Your task to perform on an android device: see sites visited before in the chrome app Image 0: 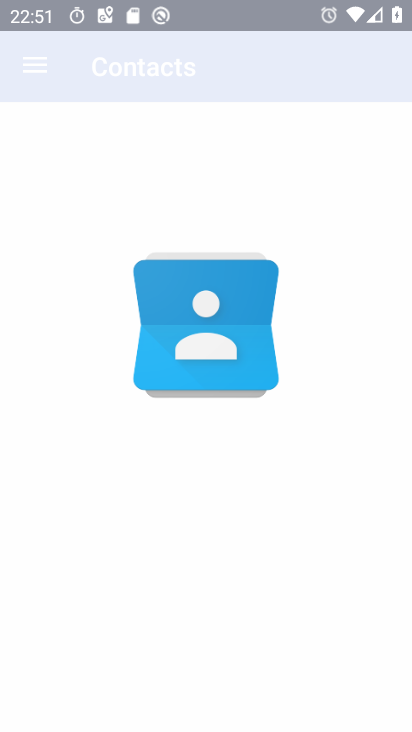
Step 0: press home button
Your task to perform on an android device: see sites visited before in the chrome app Image 1: 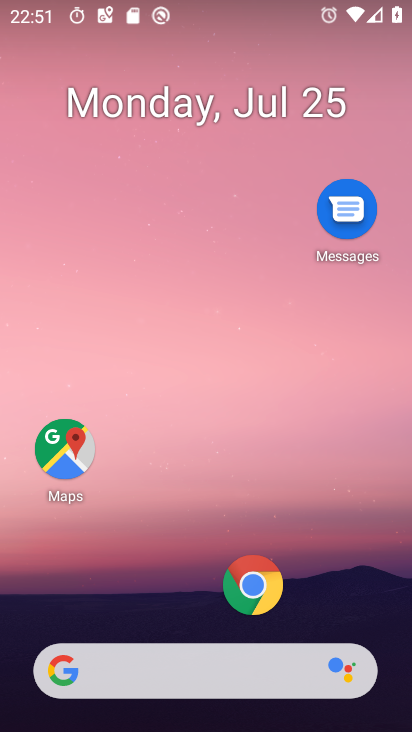
Step 1: click (278, 577)
Your task to perform on an android device: see sites visited before in the chrome app Image 2: 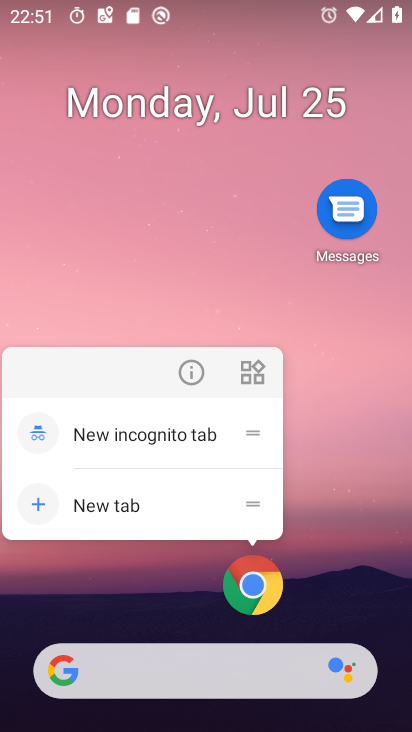
Step 2: click (258, 583)
Your task to perform on an android device: see sites visited before in the chrome app Image 3: 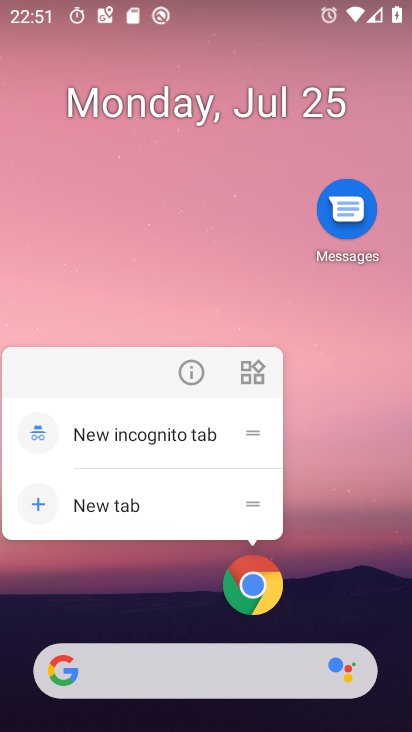
Step 3: click (250, 592)
Your task to perform on an android device: see sites visited before in the chrome app Image 4: 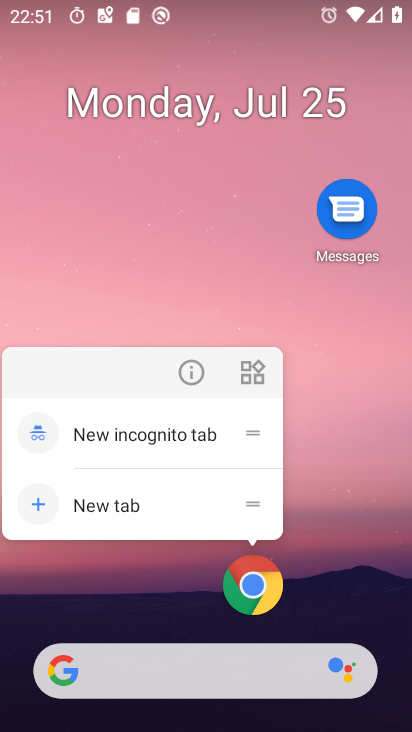
Step 4: click (250, 593)
Your task to perform on an android device: see sites visited before in the chrome app Image 5: 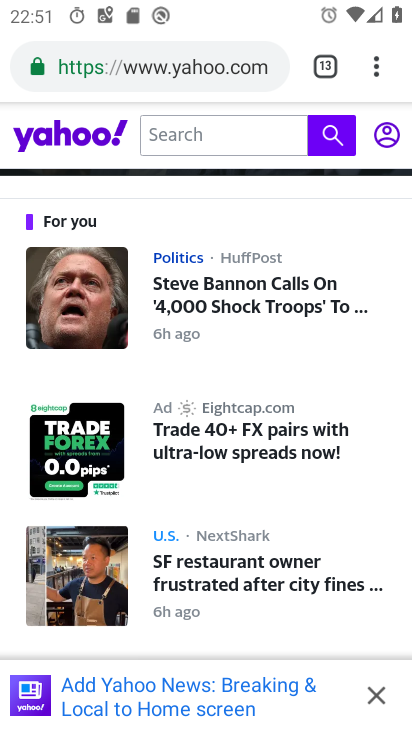
Step 5: task complete